Your task to perform on an android device: Open Amazon Image 0: 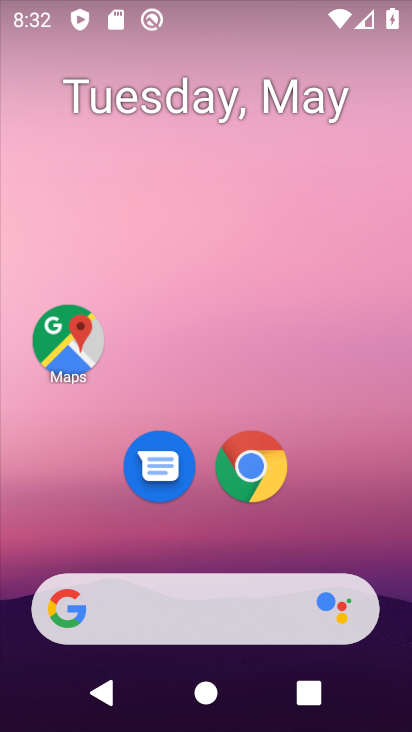
Step 0: press home button
Your task to perform on an android device: Open Amazon Image 1: 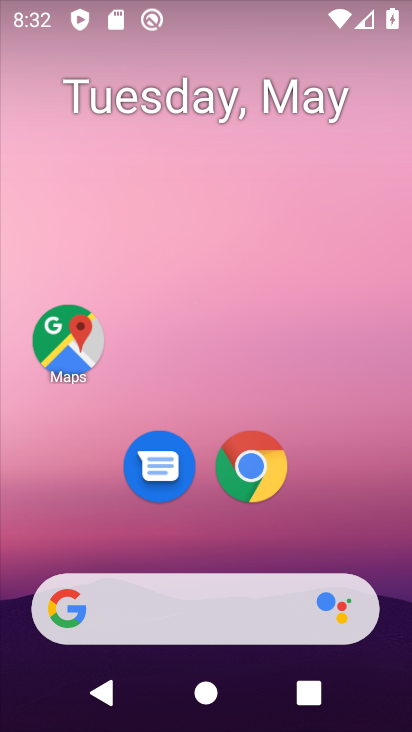
Step 1: click (250, 460)
Your task to perform on an android device: Open Amazon Image 2: 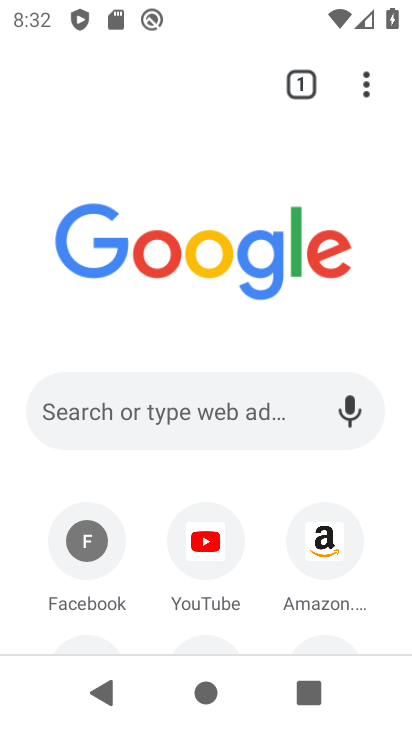
Step 2: click (324, 531)
Your task to perform on an android device: Open Amazon Image 3: 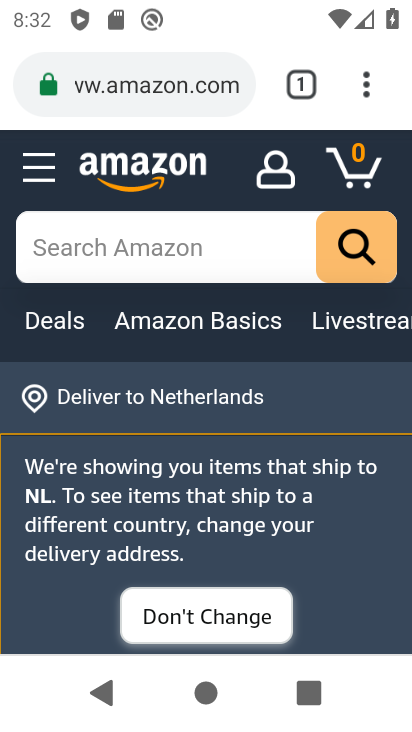
Step 3: task complete